Your task to perform on an android device: Check the news Image 0: 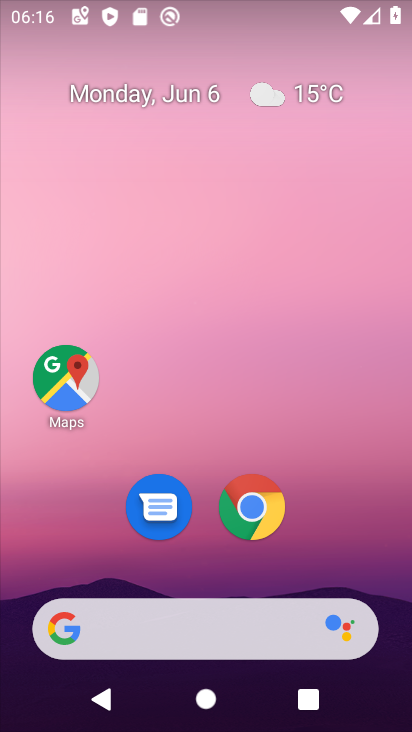
Step 0: click (245, 521)
Your task to perform on an android device: Check the news Image 1: 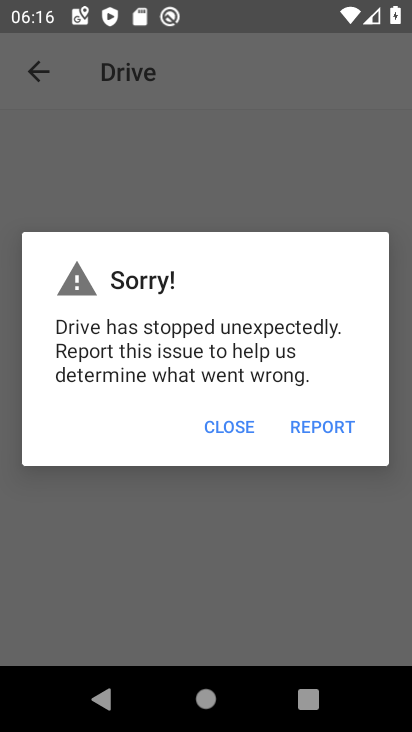
Step 1: press home button
Your task to perform on an android device: Check the news Image 2: 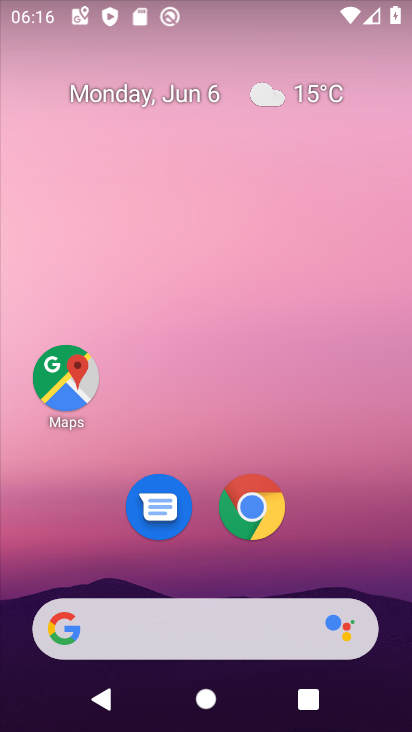
Step 2: click (177, 642)
Your task to perform on an android device: Check the news Image 3: 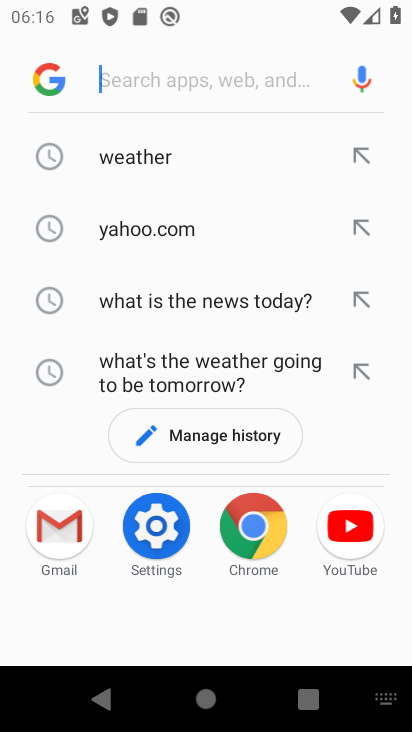
Step 3: type "news"
Your task to perform on an android device: Check the news Image 4: 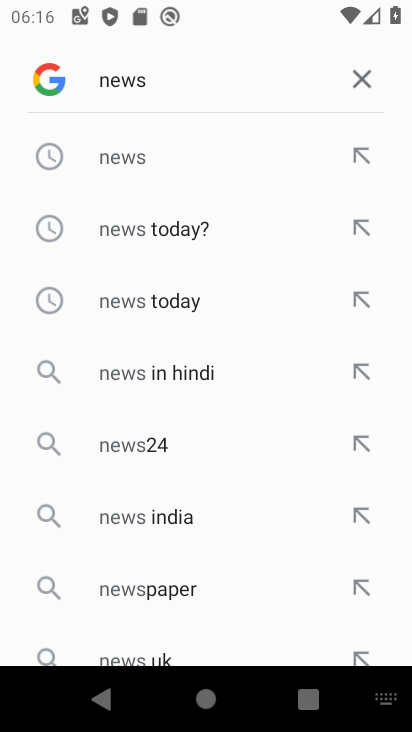
Step 4: click (159, 170)
Your task to perform on an android device: Check the news Image 5: 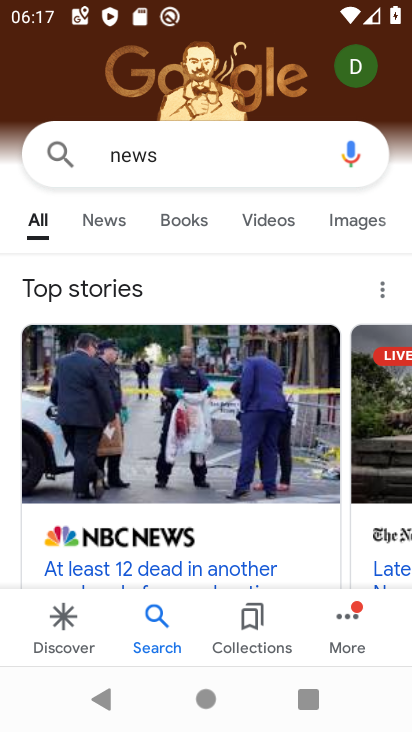
Step 5: task complete